Your task to perform on an android device: Open location settings Image 0: 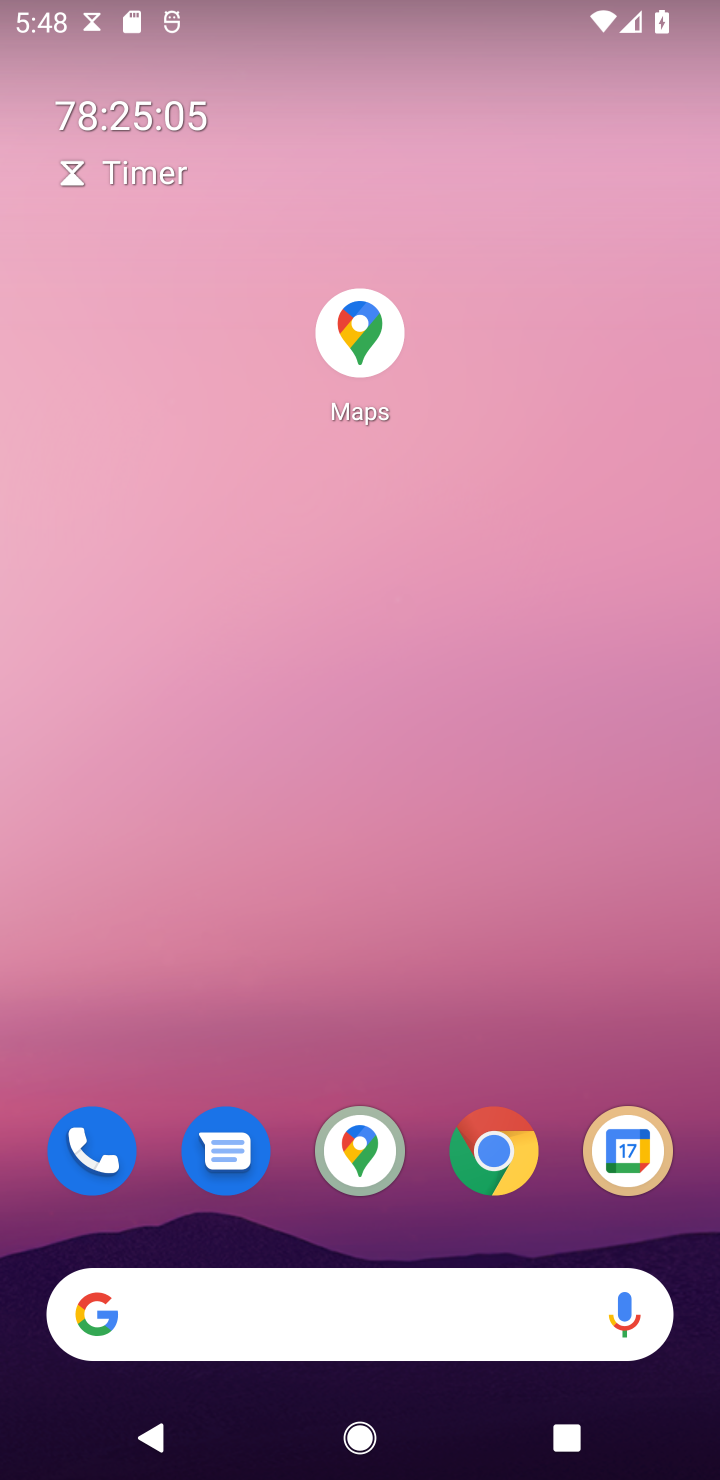
Step 0: drag from (254, 697) to (254, 397)
Your task to perform on an android device: Open location settings Image 1: 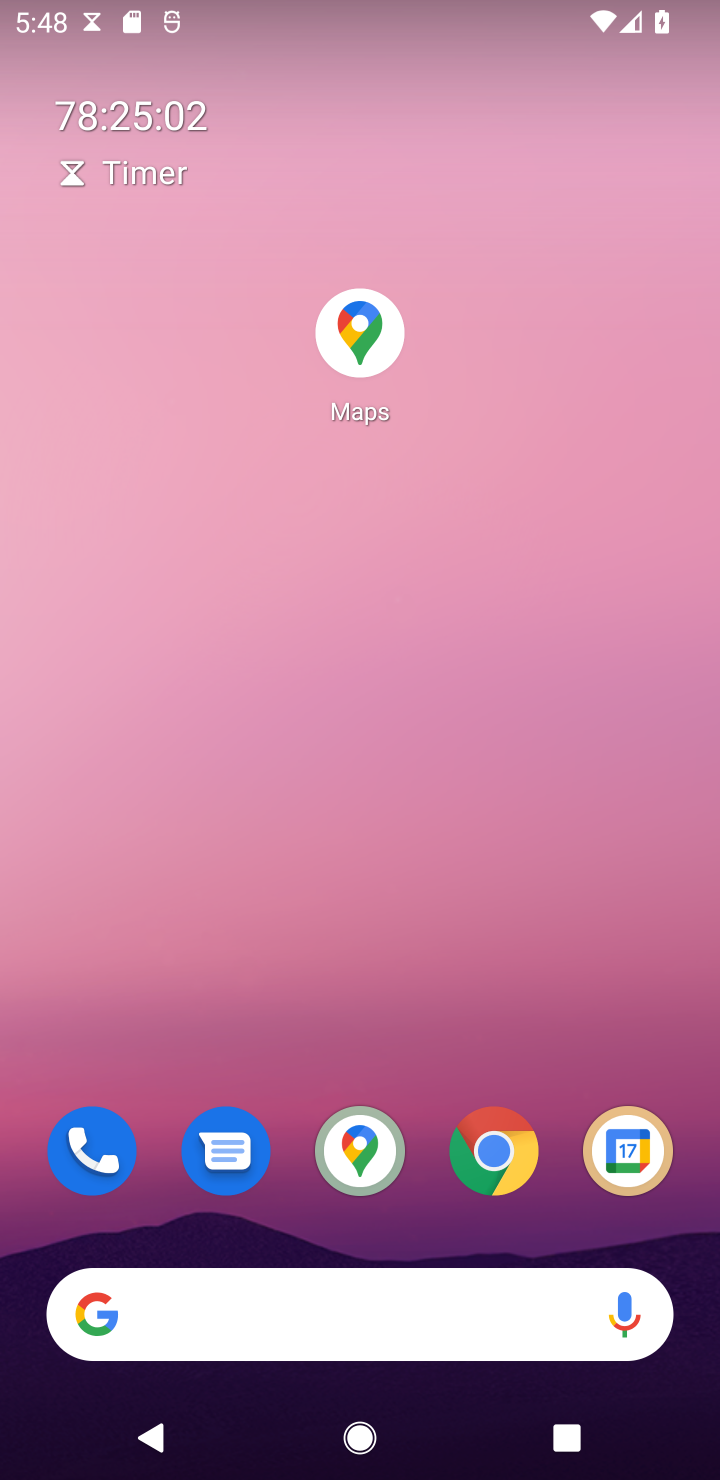
Step 1: drag from (275, 1131) to (290, 494)
Your task to perform on an android device: Open location settings Image 2: 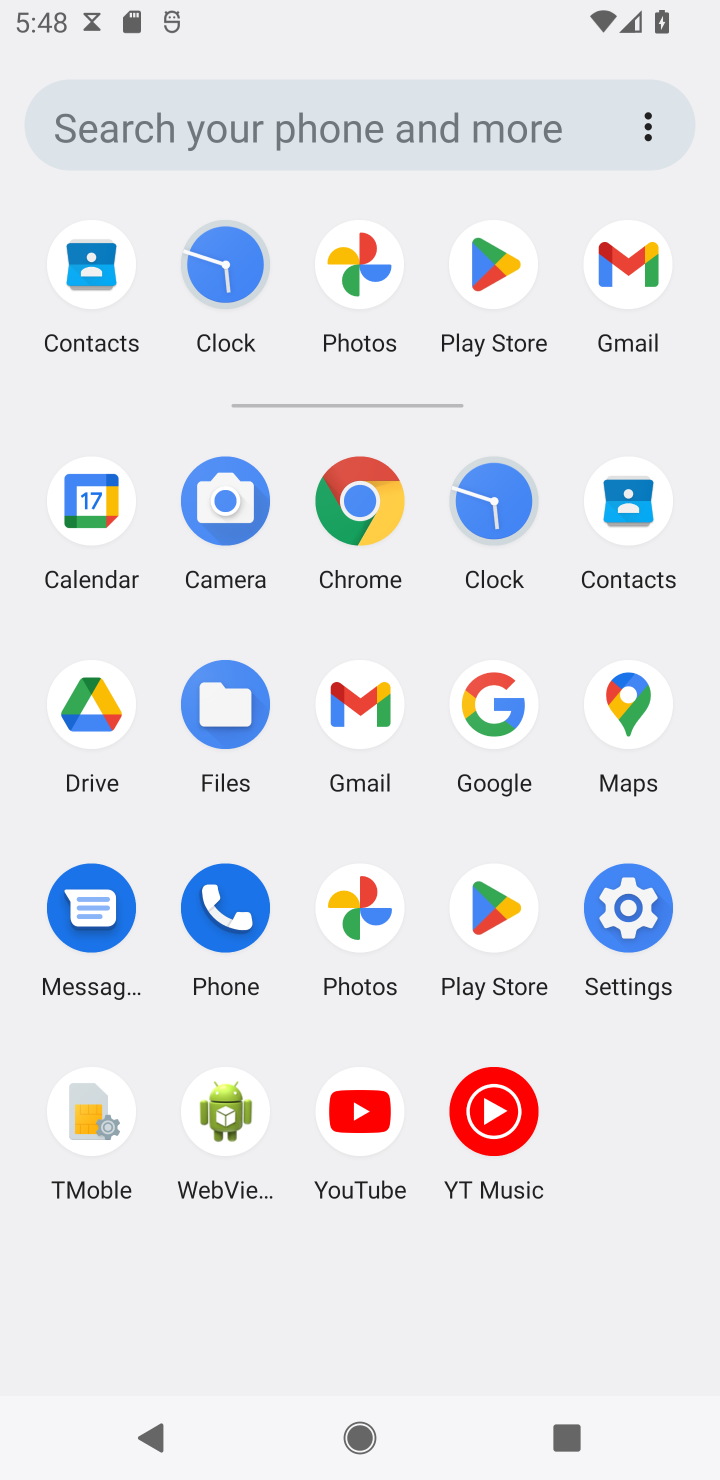
Step 2: click (631, 886)
Your task to perform on an android device: Open location settings Image 3: 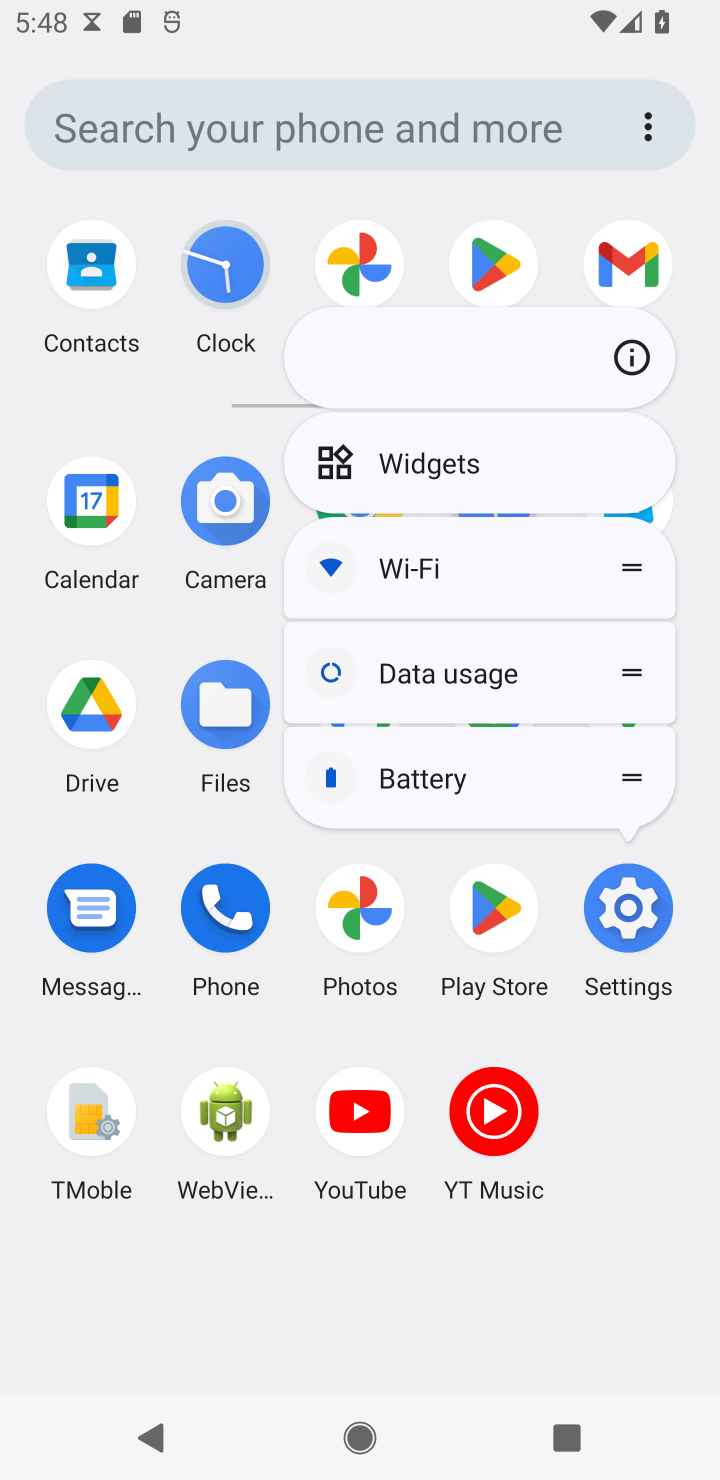
Step 3: click (632, 921)
Your task to perform on an android device: Open location settings Image 4: 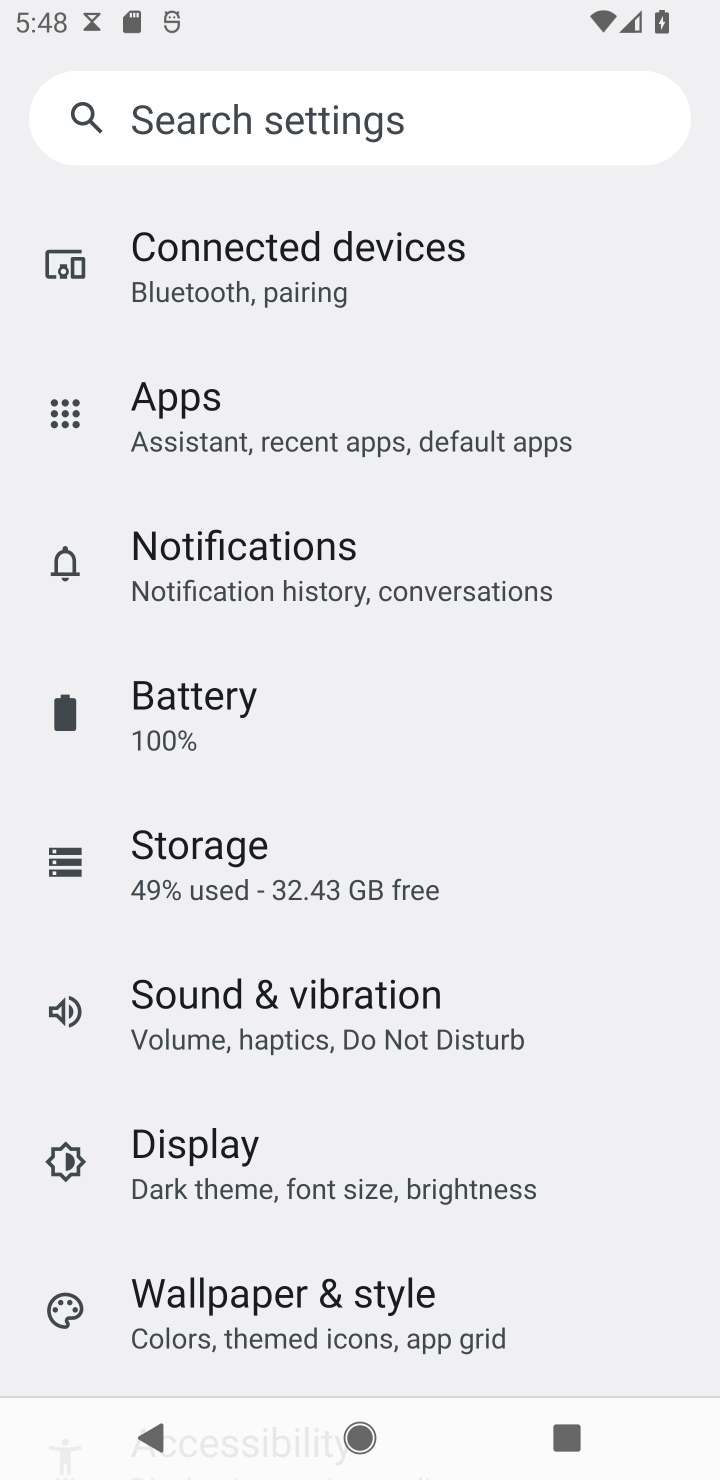
Step 4: drag from (352, 1135) to (409, 363)
Your task to perform on an android device: Open location settings Image 5: 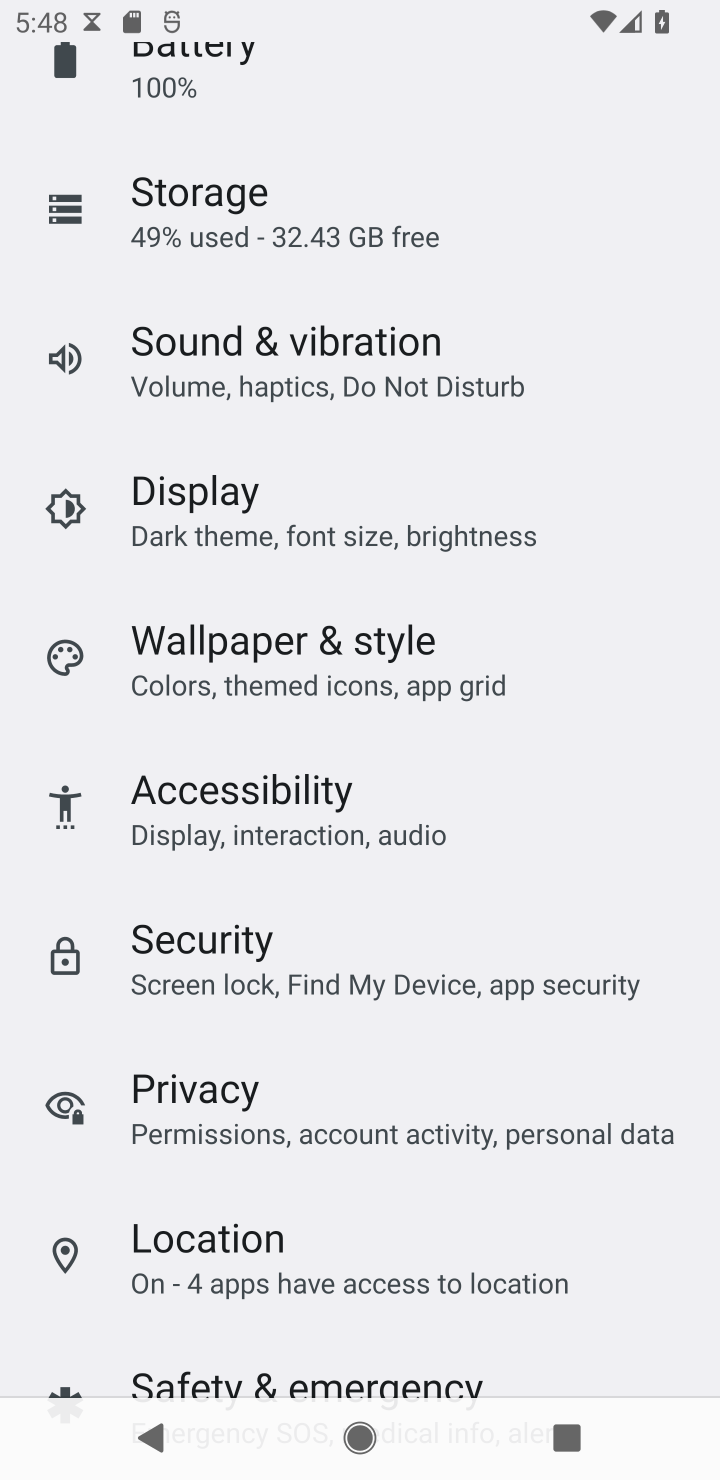
Step 5: click (328, 1224)
Your task to perform on an android device: Open location settings Image 6: 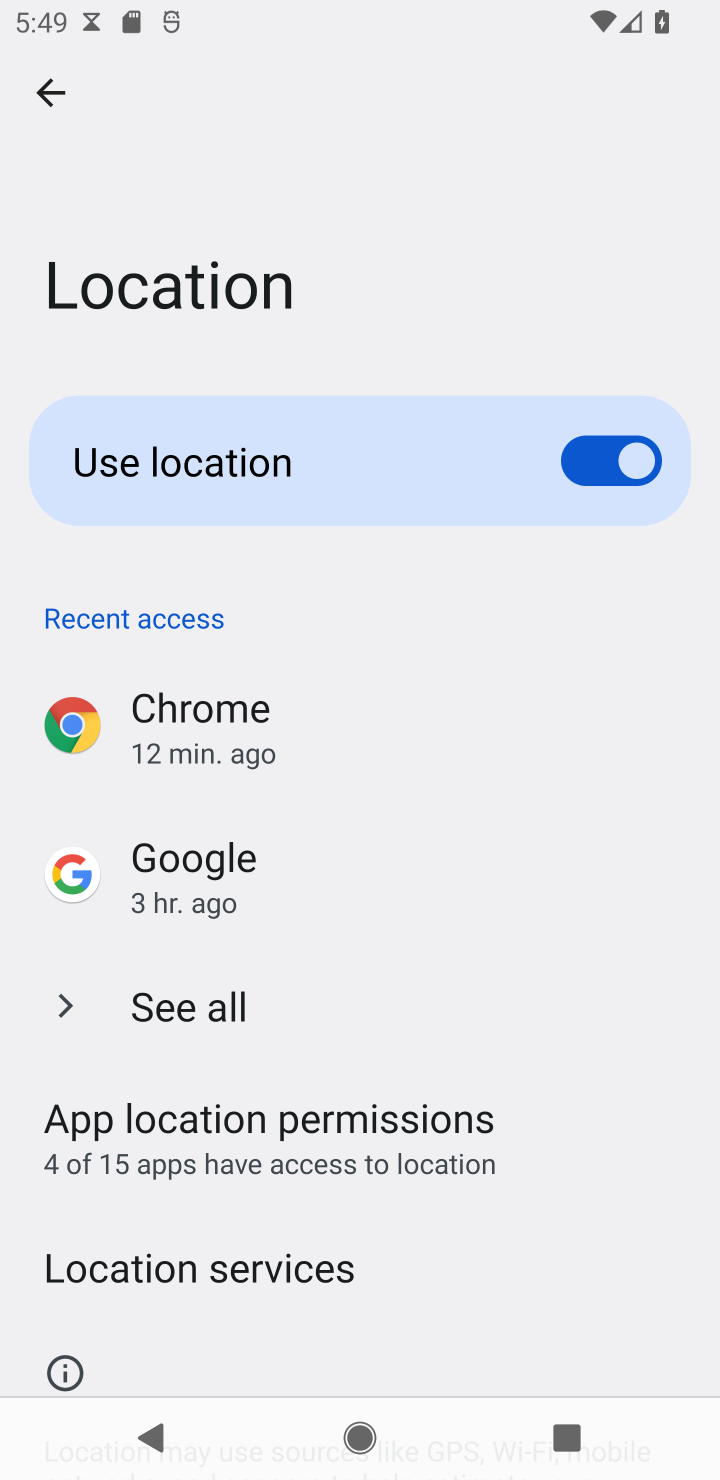
Step 6: task complete